Your task to perform on an android device: allow cookies in the chrome app Image 0: 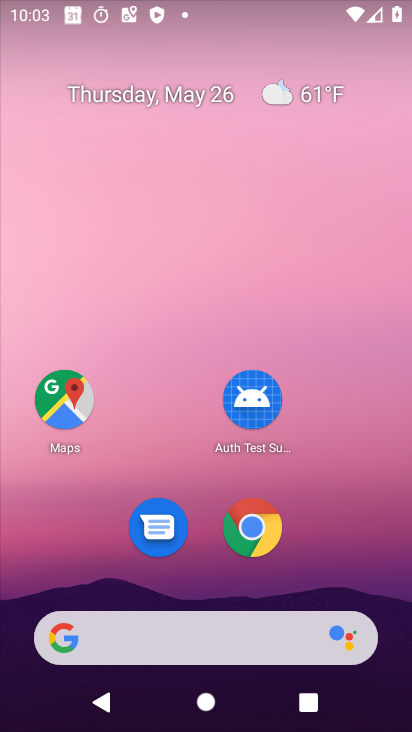
Step 0: drag from (318, 520) to (223, 8)
Your task to perform on an android device: allow cookies in the chrome app Image 1: 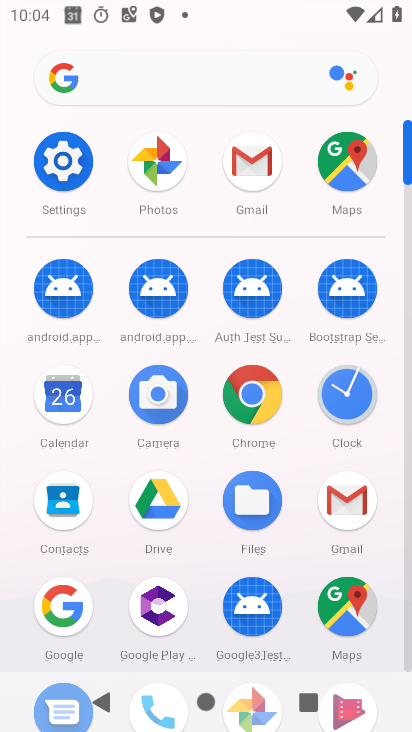
Step 1: click (244, 410)
Your task to perform on an android device: allow cookies in the chrome app Image 2: 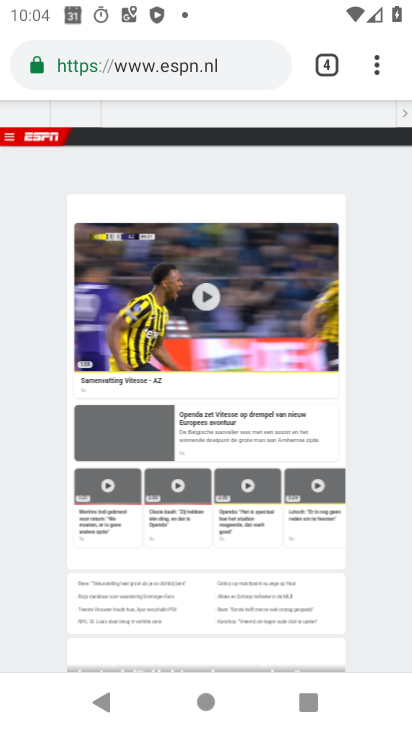
Step 2: drag from (375, 65) to (134, 573)
Your task to perform on an android device: allow cookies in the chrome app Image 3: 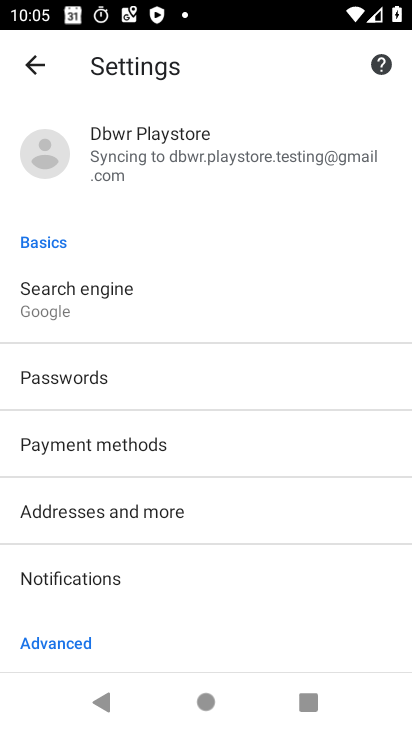
Step 3: drag from (99, 598) to (182, 206)
Your task to perform on an android device: allow cookies in the chrome app Image 4: 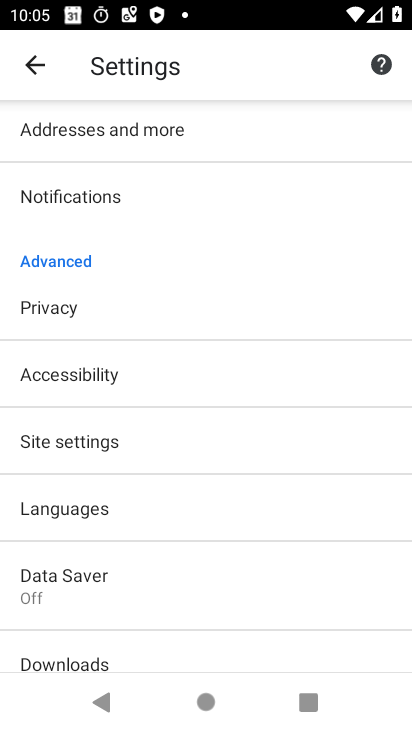
Step 4: click (27, 443)
Your task to perform on an android device: allow cookies in the chrome app Image 5: 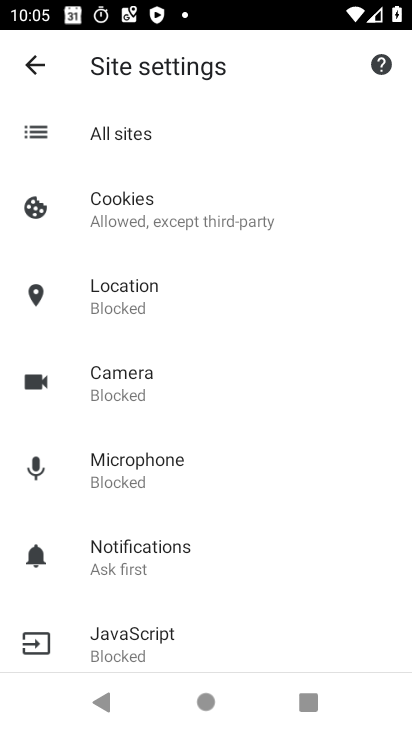
Step 5: click (131, 232)
Your task to perform on an android device: allow cookies in the chrome app Image 6: 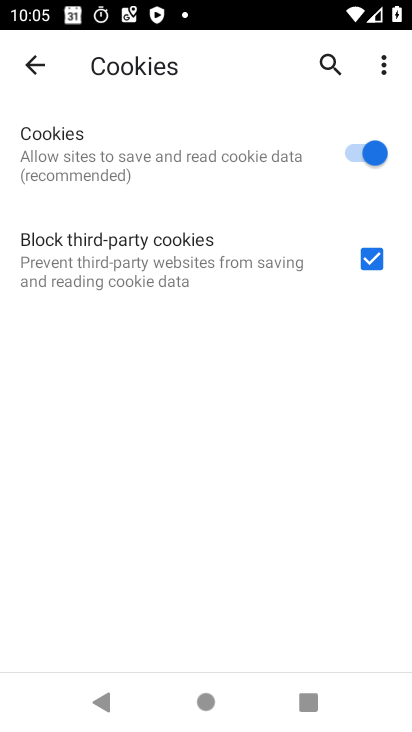
Step 6: task complete